Your task to perform on an android device: turn on sleep mode Image 0: 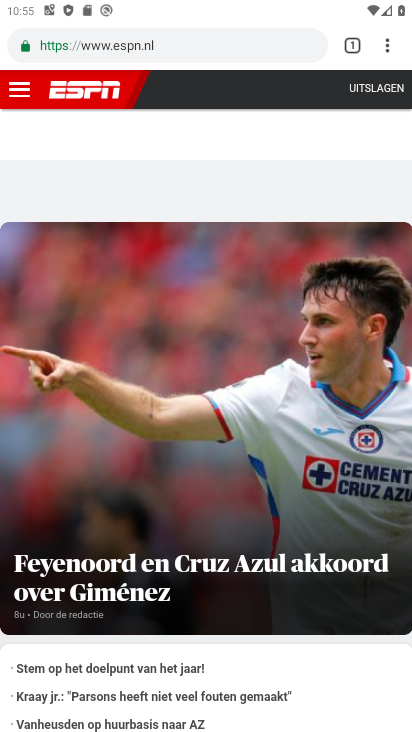
Step 0: press home button
Your task to perform on an android device: turn on sleep mode Image 1: 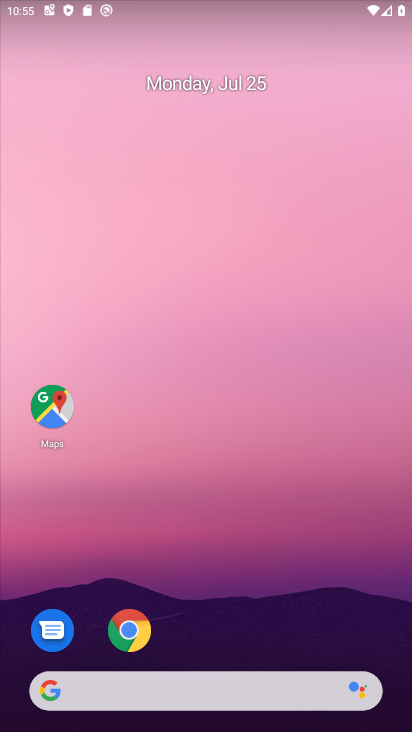
Step 1: drag from (342, 583) to (334, 288)
Your task to perform on an android device: turn on sleep mode Image 2: 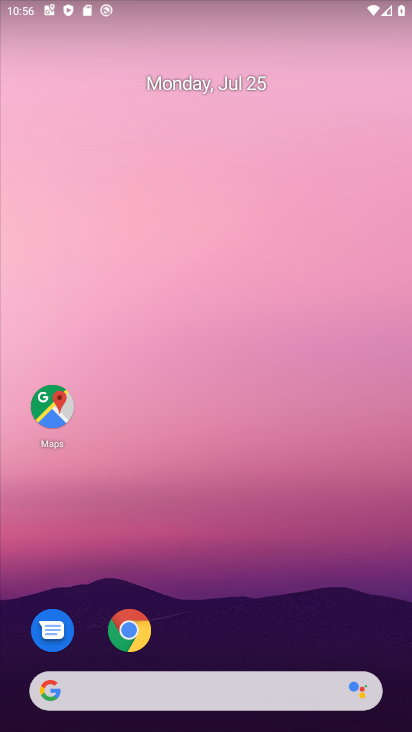
Step 2: drag from (389, 613) to (375, 105)
Your task to perform on an android device: turn on sleep mode Image 3: 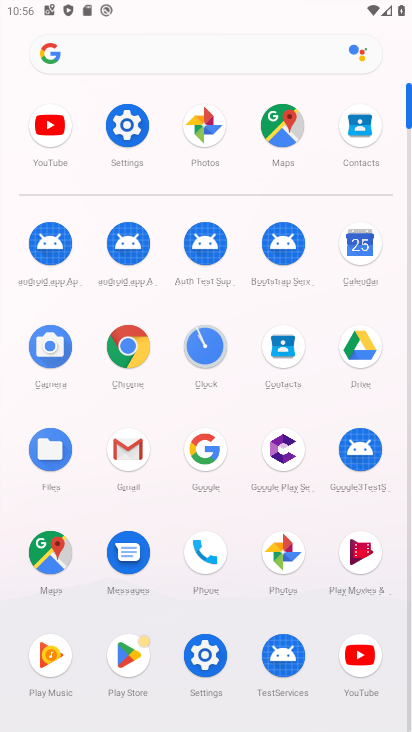
Step 3: click (131, 126)
Your task to perform on an android device: turn on sleep mode Image 4: 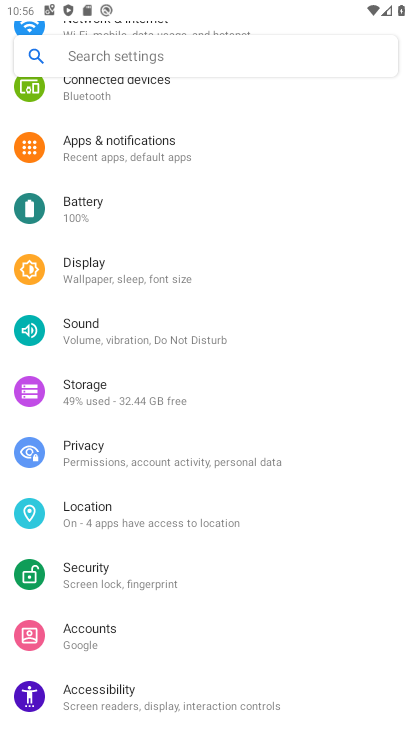
Step 4: drag from (324, 184) to (327, 258)
Your task to perform on an android device: turn on sleep mode Image 5: 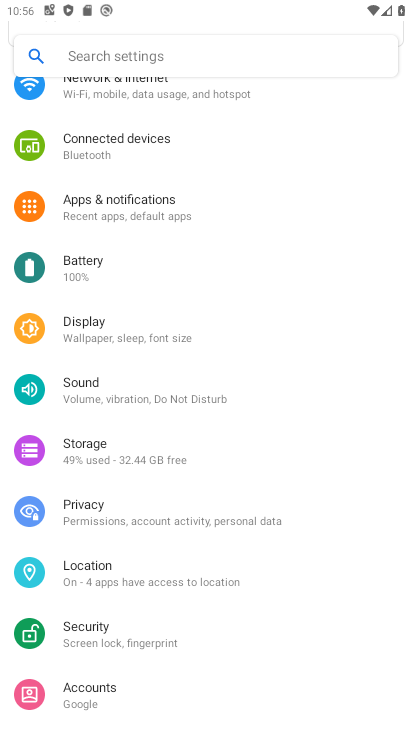
Step 5: drag from (323, 147) to (323, 226)
Your task to perform on an android device: turn on sleep mode Image 6: 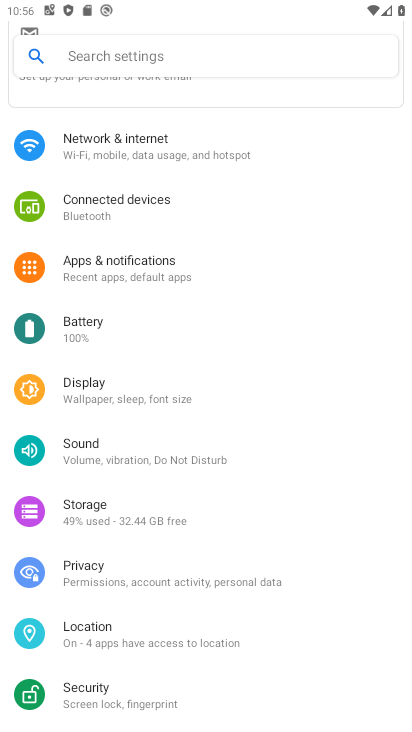
Step 6: drag from (303, 227) to (312, 360)
Your task to perform on an android device: turn on sleep mode Image 7: 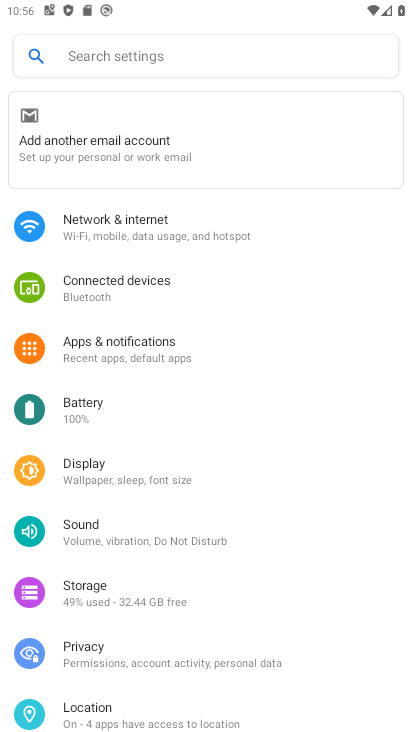
Step 7: click (147, 464)
Your task to perform on an android device: turn on sleep mode Image 8: 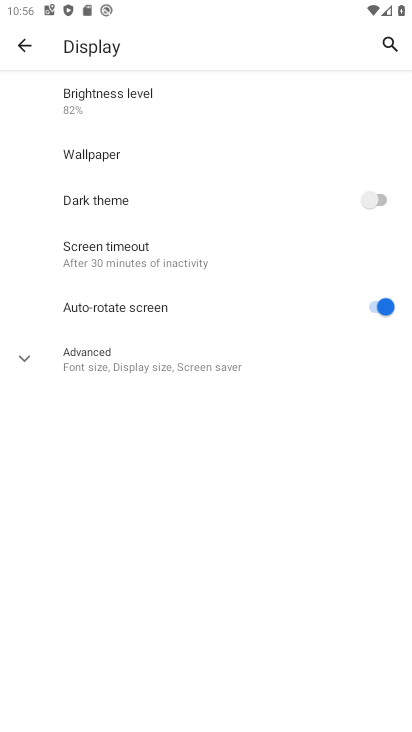
Step 8: click (182, 379)
Your task to perform on an android device: turn on sleep mode Image 9: 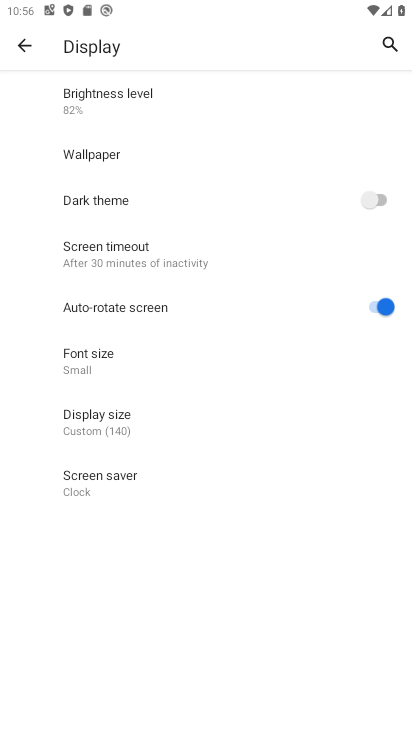
Step 9: task complete